Your task to perform on an android device: Open wifi settings Image 0: 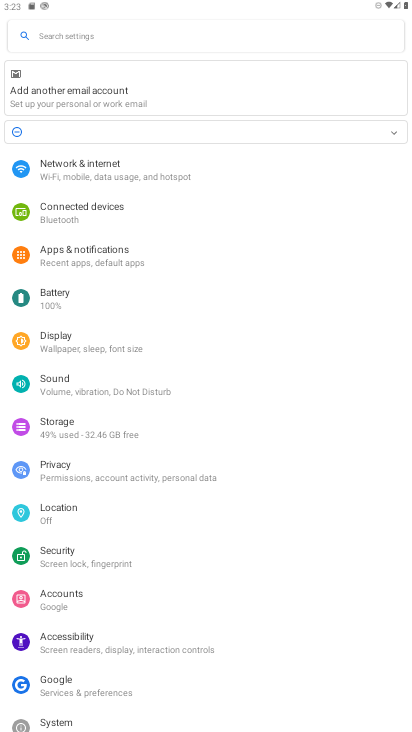
Step 0: click (86, 158)
Your task to perform on an android device: Open wifi settings Image 1: 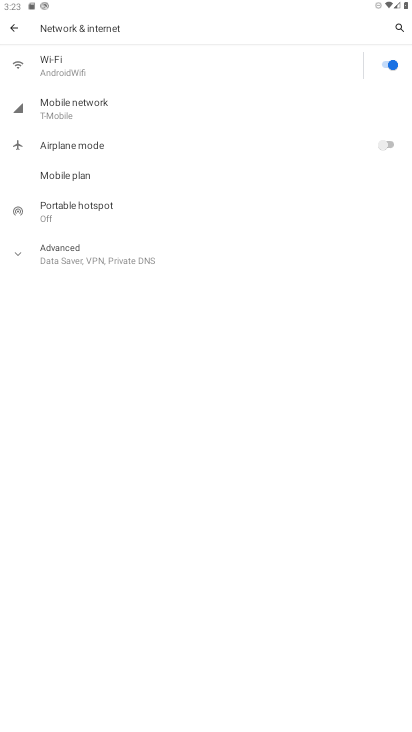
Step 1: click (84, 39)
Your task to perform on an android device: Open wifi settings Image 2: 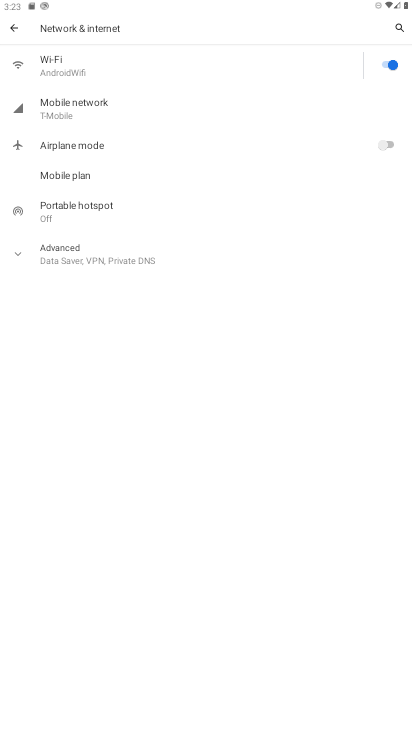
Step 2: click (78, 65)
Your task to perform on an android device: Open wifi settings Image 3: 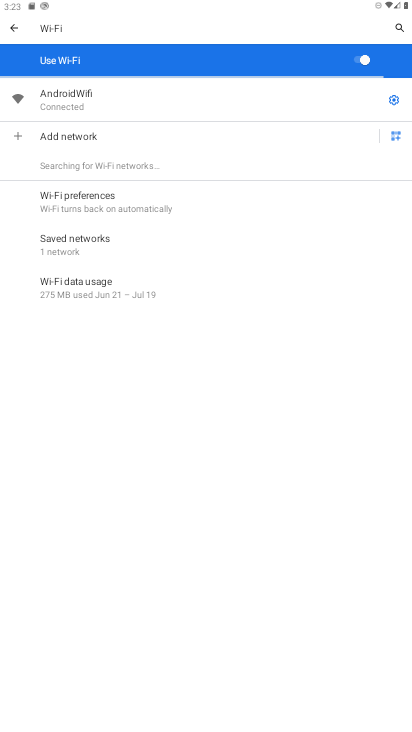
Step 3: task complete